Your task to perform on an android device: toggle show notifications on the lock screen Image 0: 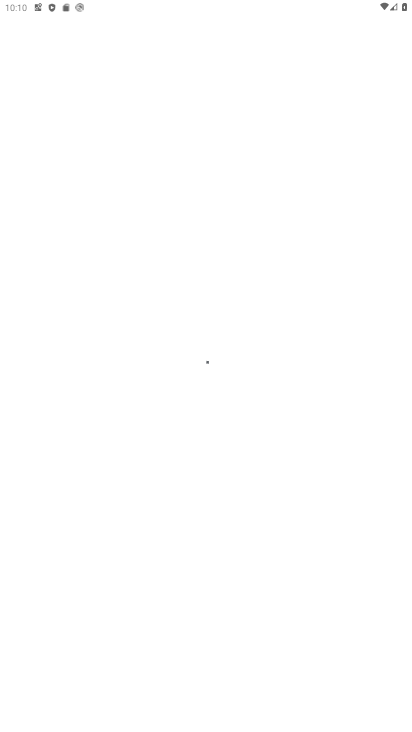
Step 0: drag from (125, 582) to (141, 452)
Your task to perform on an android device: toggle show notifications on the lock screen Image 1: 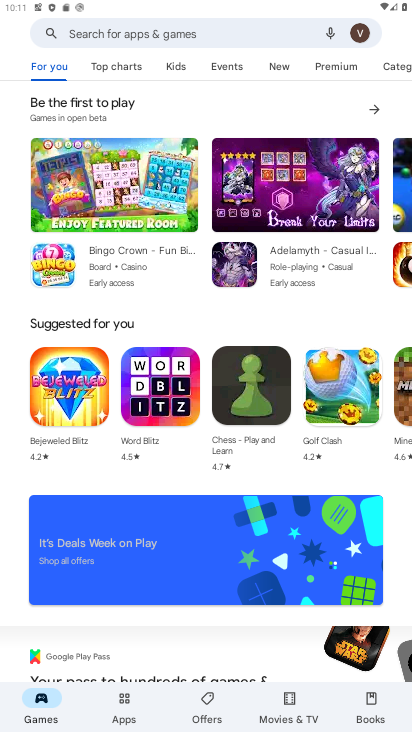
Step 1: press home button
Your task to perform on an android device: toggle show notifications on the lock screen Image 2: 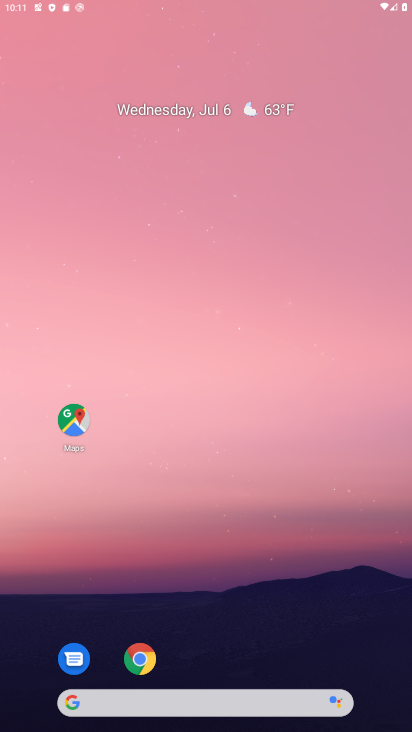
Step 2: drag from (237, 582) to (332, 157)
Your task to perform on an android device: toggle show notifications on the lock screen Image 3: 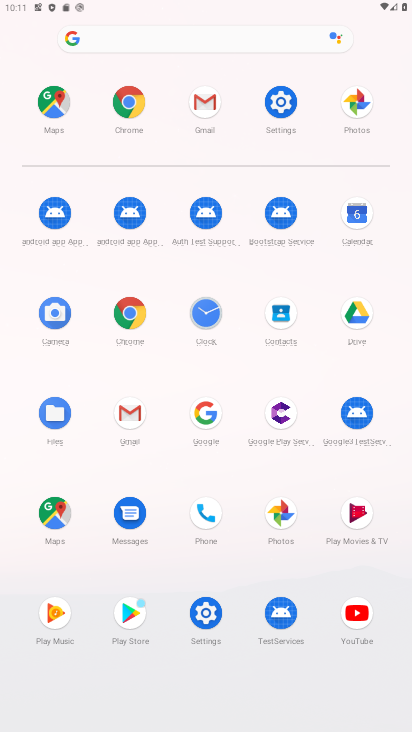
Step 3: click (284, 96)
Your task to perform on an android device: toggle show notifications on the lock screen Image 4: 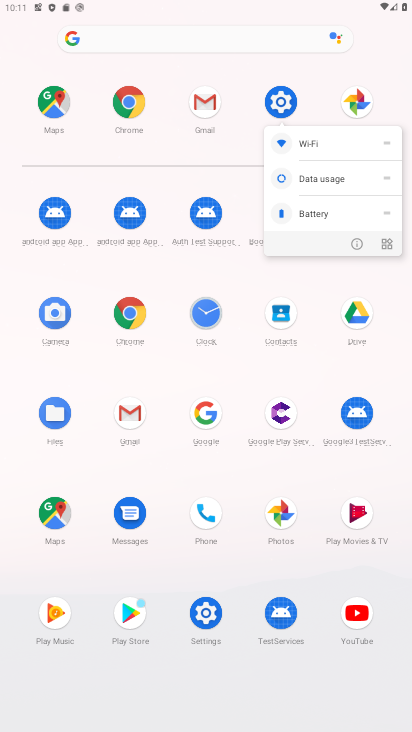
Step 4: click (358, 240)
Your task to perform on an android device: toggle show notifications on the lock screen Image 5: 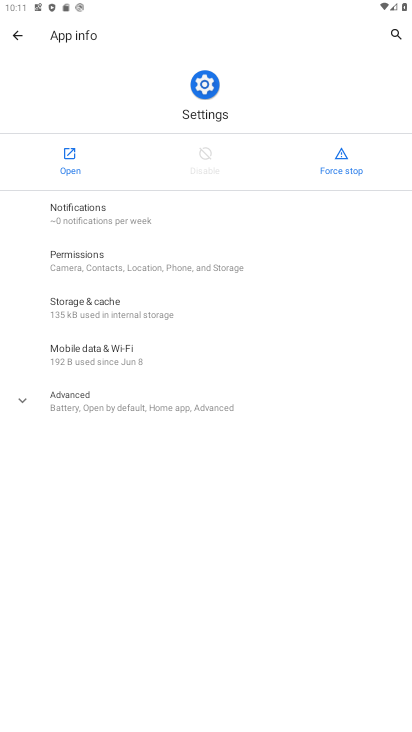
Step 5: click (58, 147)
Your task to perform on an android device: toggle show notifications on the lock screen Image 6: 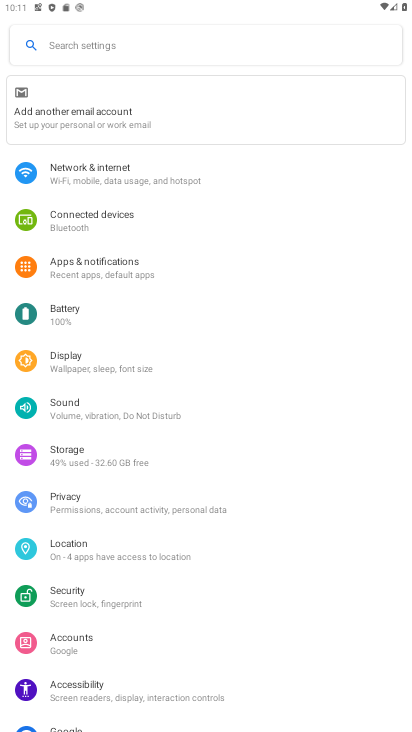
Step 6: click (83, 366)
Your task to perform on an android device: toggle show notifications on the lock screen Image 7: 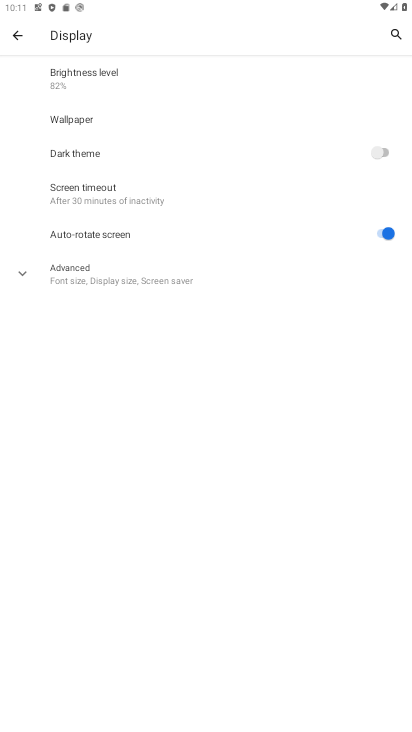
Step 7: click (13, 31)
Your task to perform on an android device: toggle show notifications on the lock screen Image 8: 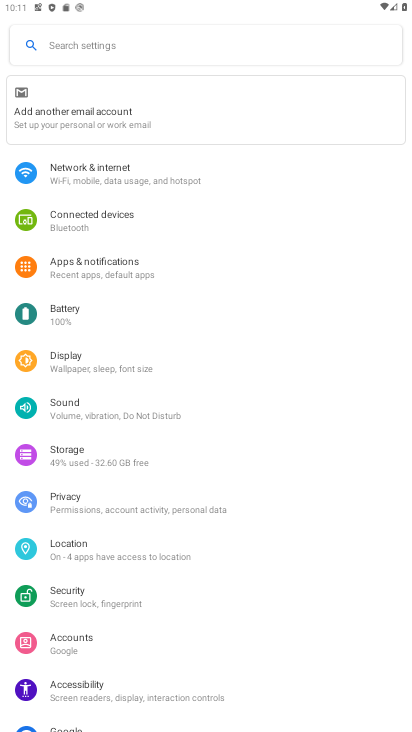
Step 8: click (118, 261)
Your task to perform on an android device: toggle show notifications on the lock screen Image 9: 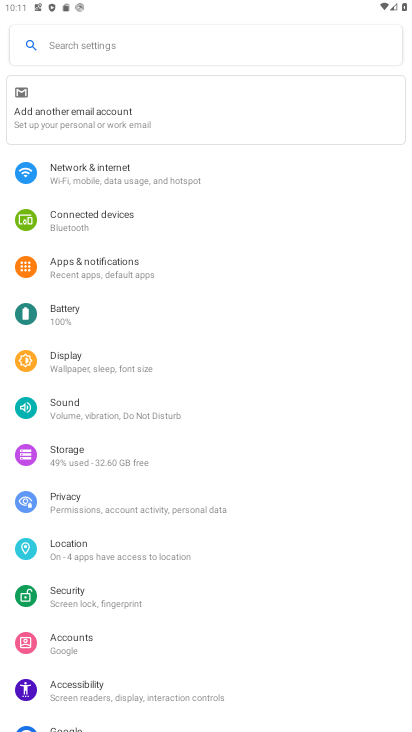
Step 9: click (118, 261)
Your task to perform on an android device: toggle show notifications on the lock screen Image 10: 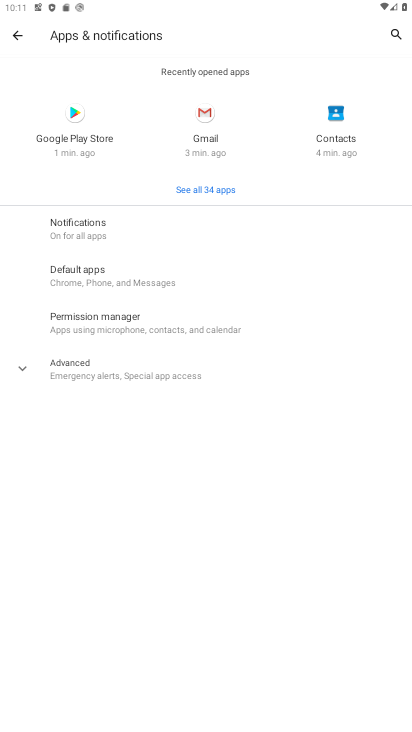
Step 10: click (116, 225)
Your task to perform on an android device: toggle show notifications on the lock screen Image 11: 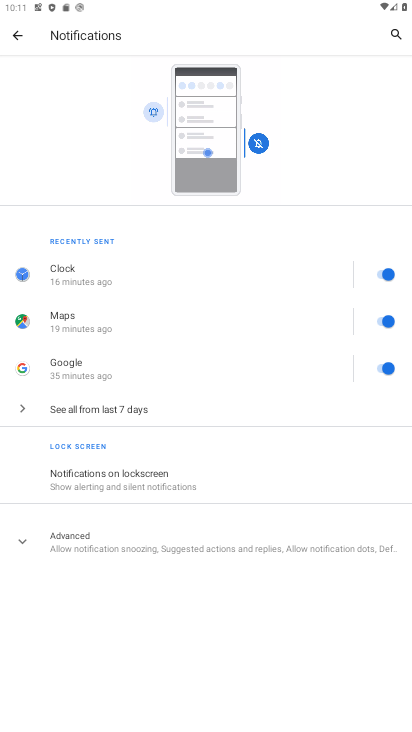
Step 11: click (149, 479)
Your task to perform on an android device: toggle show notifications on the lock screen Image 12: 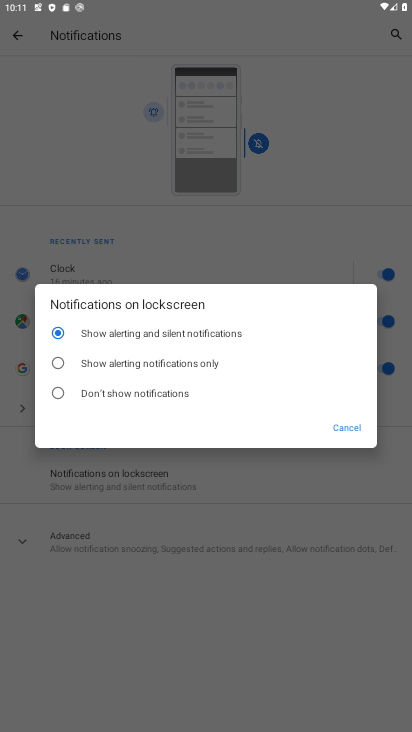
Step 12: click (73, 363)
Your task to perform on an android device: toggle show notifications on the lock screen Image 13: 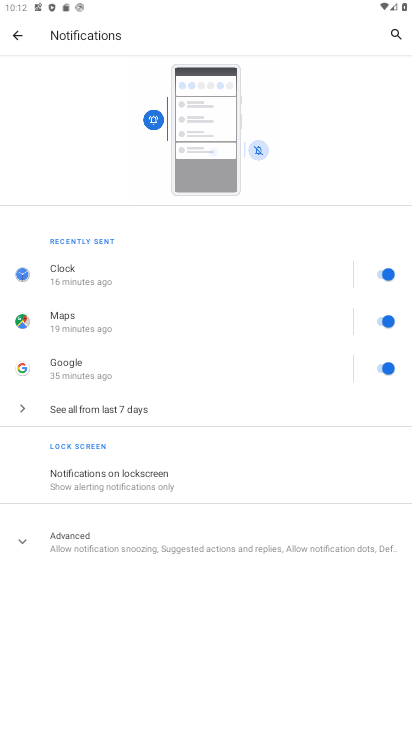
Step 13: task complete